Your task to perform on an android device: Search for "razer nari" on walmart.com, select the first entry, add it to the cart, then select checkout. Image 0: 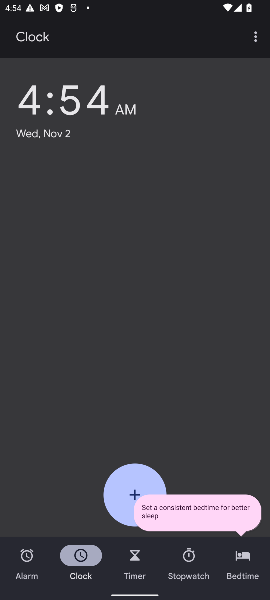
Step 0: press home button
Your task to perform on an android device: Search for "razer nari" on walmart.com, select the first entry, add it to the cart, then select checkout. Image 1: 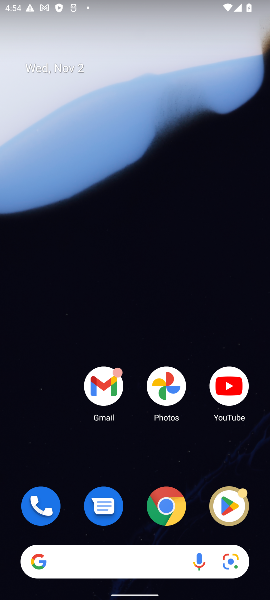
Step 1: click (164, 516)
Your task to perform on an android device: Search for "razer nari" on walmart.com, select the first entry, add it to the cart, then select checkout. Image 2: 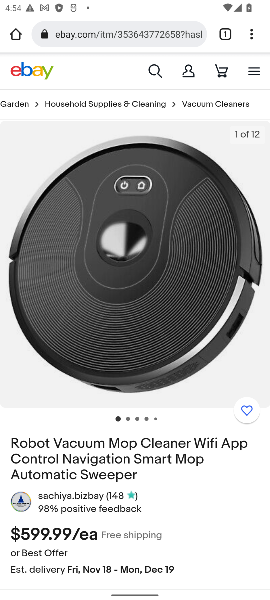
Step 2: click (144, 33)
Your task to perform on an android device: Search for "razer nari" on walmart.com, select the first entry, add it to the cart, then select checkout. Image 3: 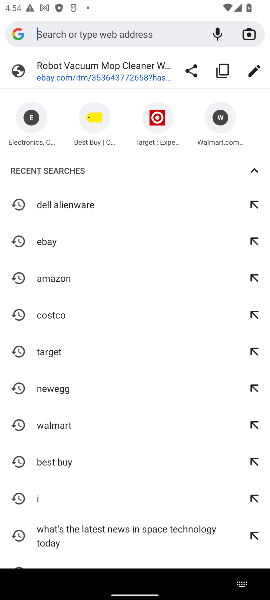
Step 3: type "walmart"
Your task to perform on an android device: Search for "razer nari" on walmart.com, select the first entry, add it to the cart, then select checkout. Image 4: 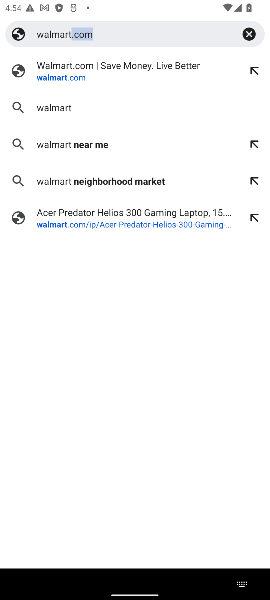
Step 4: press enter
Your task to perform on an android device: Search for "razer nari" on walmart.com, select the first entry, add it to the cart, then select checkout. Image 5: 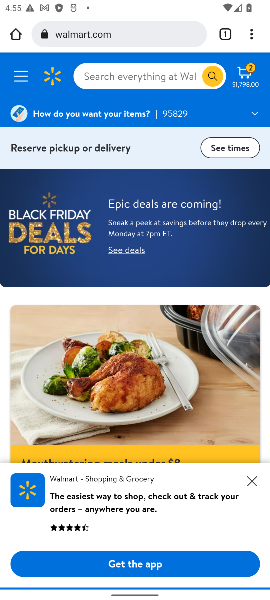
Step 5: click (127, 93)
Your task to perform on an android device: Search for "razer nari" on walmart.com, select the first entry, add it to the cart, then select checkout. Image 6: 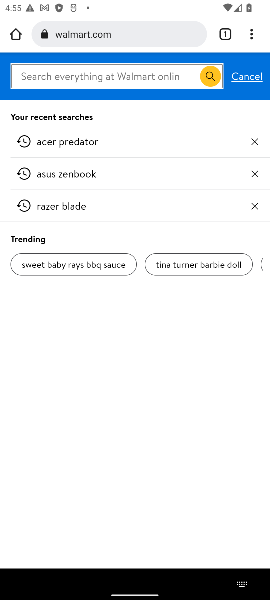
Step 6: type "razer nari"
Your task to perform on an android device: Search for "razer nari" on walmart.com, select the first entry, add it to the cart, then select checkout. Image 7: 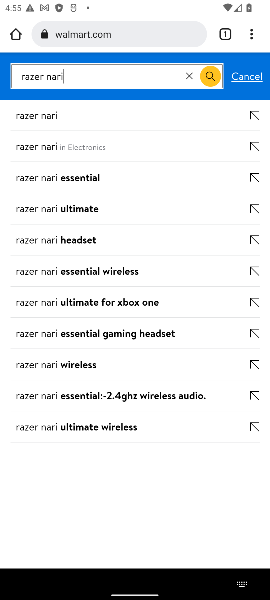
Step 7: press enter
Your task to perform on an android device: Search for "razer nari" on walmart.com, select the first entry, add it to the cart, then select checkout. Image 8: 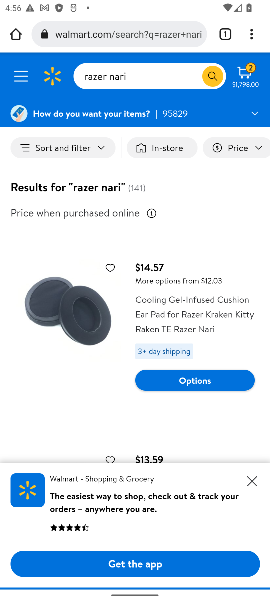
Step 8: drag from (94, 378) to (92, 134)
Your task to perform on an android device: Search for "razer nari" on walmart.com, select the first entry, add it to the cart, then select checkout. Image 9: 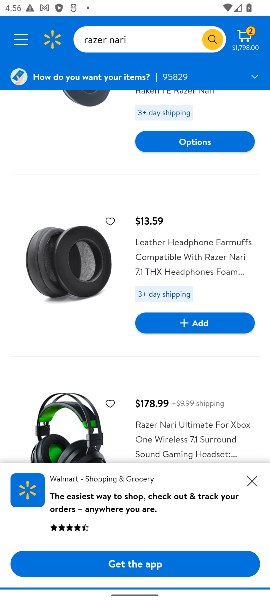
Step 9: click (96, 116)
Your task to perform on an android device: Search for "razer nari" on walmart.com, select the first entry, add it to the cart, then select checkout. Image 10: 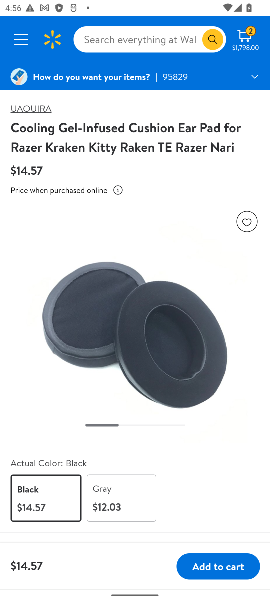
Step 10: click (221, 566)
Your task to perform on an android device: Search for "razer nari" on walmart.com, select the first entry, add it to the cart, then select checkout. Image 11: 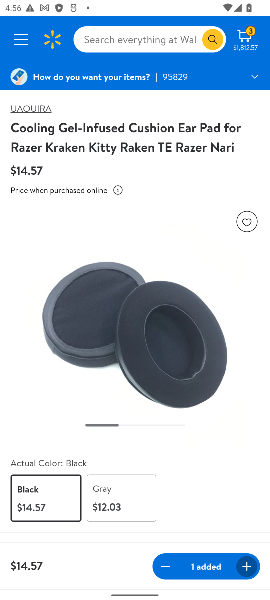
Step 11: click (250, 36)
Your task to perform on an android device: Search for "razer nari" on walmart.com, select the first entry, add it to the cart, then select checkout. Image 12: 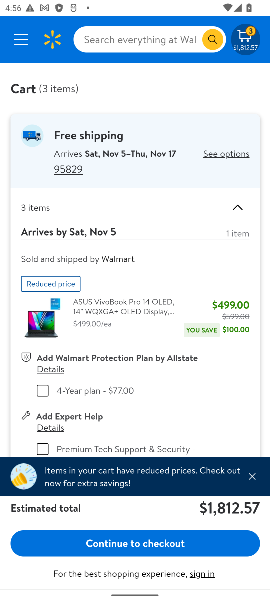
Step 12: click (160, 546)
Your task to perform on an android device: Search for "razer nari" on walmart.com, select the first entry, add it to the cart, then select checkout. Image 13: 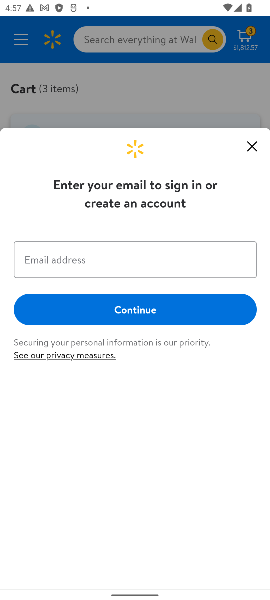
Step 13: task complete